Your task to perform on an android device: choose inbox layout in the gmail app Image 0: 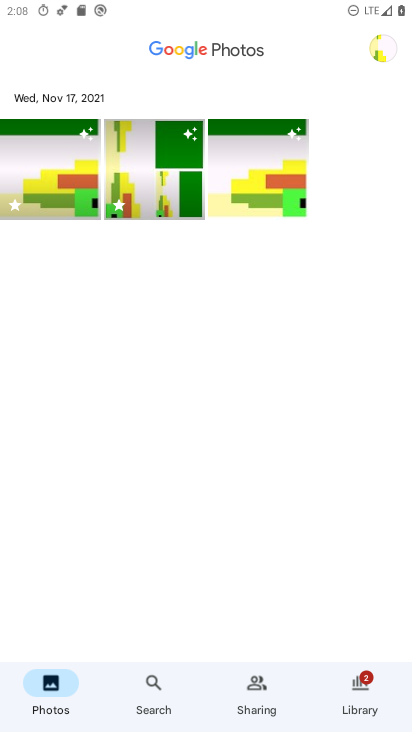
Step 0: drag from (215, 561) to (216, 157)
Your task to perform on an android device: choose inbox layout in the gmail app Image 1: 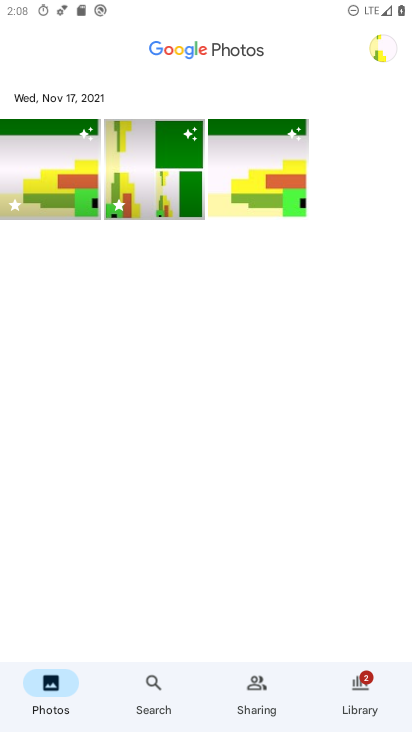
Step 1: press home button
Your task to perform on an android device: choose inbox layout in the gmail app Image 2: 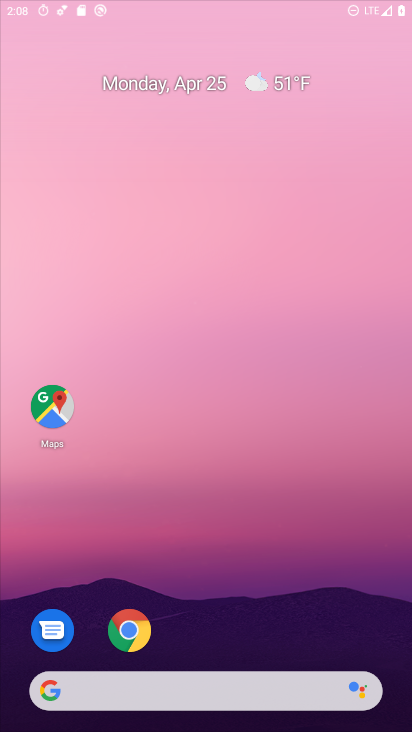
Step 2: drag from (244, 577) to (292, 220)
Your task to perform on an android device: choose inbox layout in the gmail app Image 3: 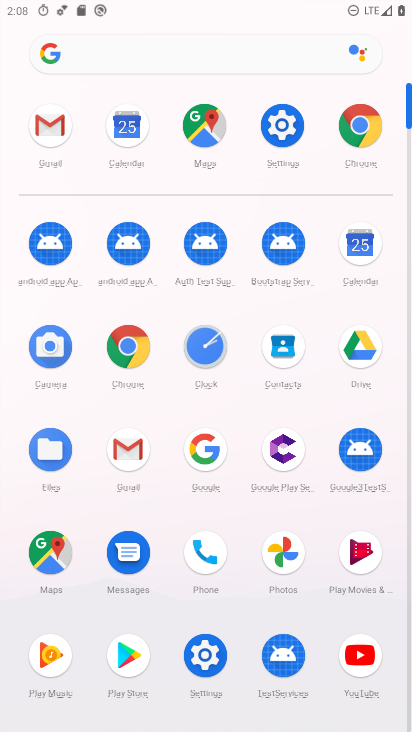
Step 3: click (133, 446)
Your task to perform on an android device: choose inbox layout in the gmail app Image 4: 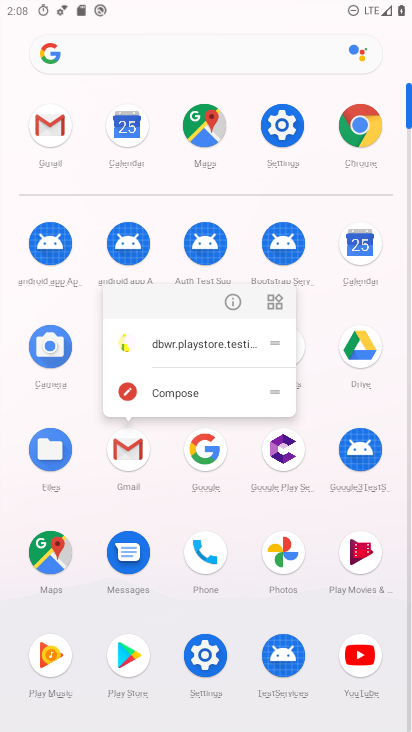
Step 4: click (230, 305)
Your task to perform on an android device: choose inbox layout in the gmail app Image 5: 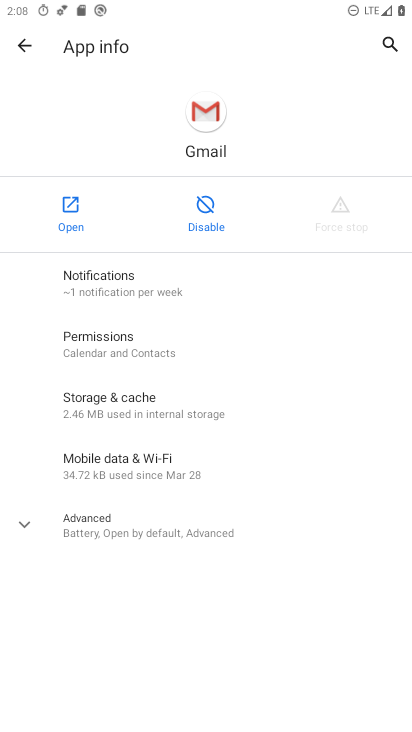
Step 5: click (65, 217)
Your task to perform on an android device: choose inbox layout in the gmail app Image 6: 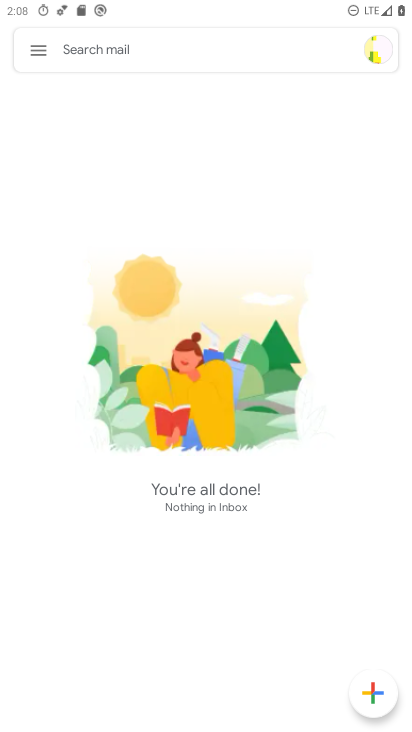
Step 6: click (36, 46)
Your task to perform on an android device: choose inbox layout in the gmail app Image 7: 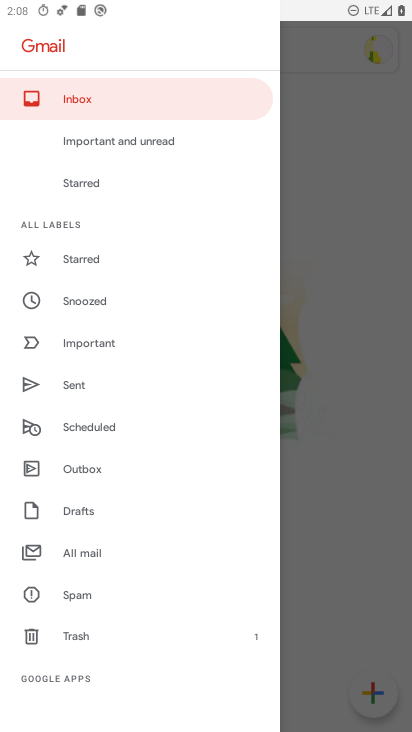
Step 7: drag from (110, 488) to (170, 118)
Your task to perform on an android device: choose inbox layout in the gmail app Image 8: 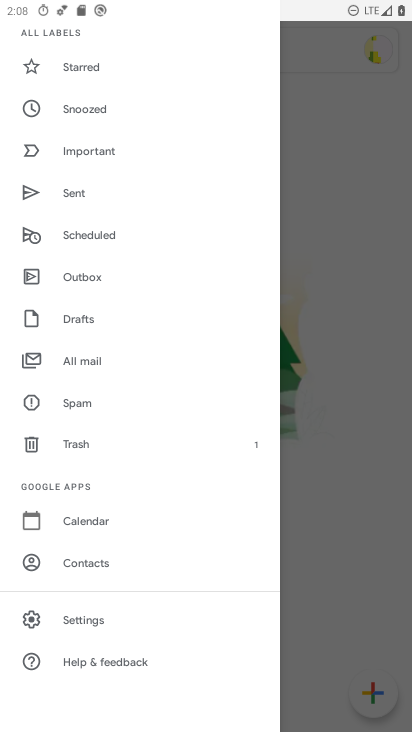
Step 8: drag from (120, 524) to (180, 138)
Your task to perform on an android device: choose inbox layout in the gmail app Image 9: 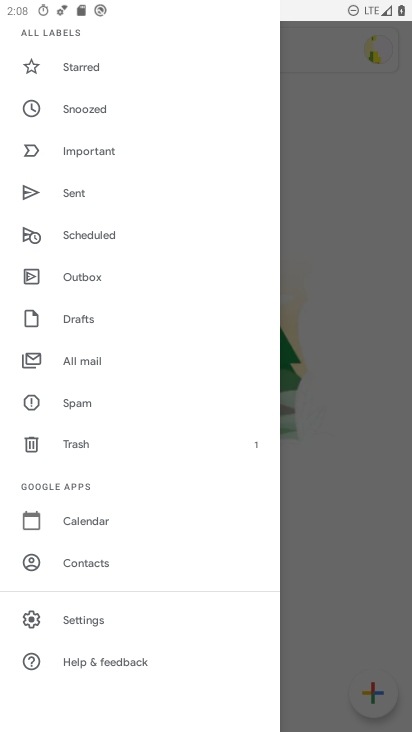
Step 9: drag from (128, 617) to (132, 392)
Your task to perform on an android device: choose inbox layout in the gmail app Image 10: 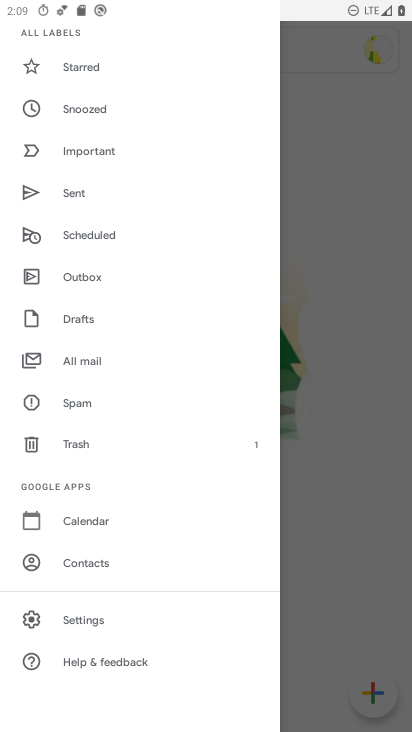
Step 10: drag from (145, 306) to (228, 729)
Your task to perform on an android device: choose inbox layout in the gmail app Image 11: 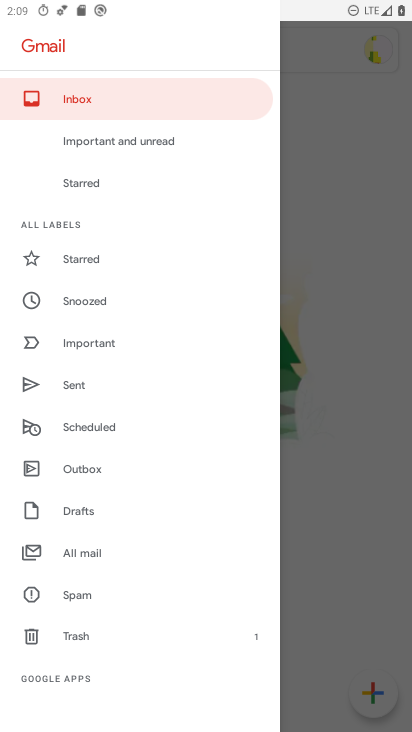
Step 11: click (155, 97)
Your task to perform on an android device: choose inbox layout in the gmail app Image 12: 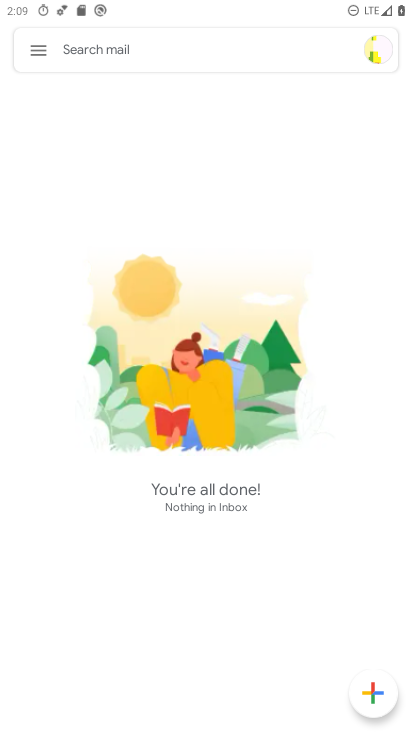
Step 12: task complete